Your task to perform on an android device: Go to Reddit.com Image 0: 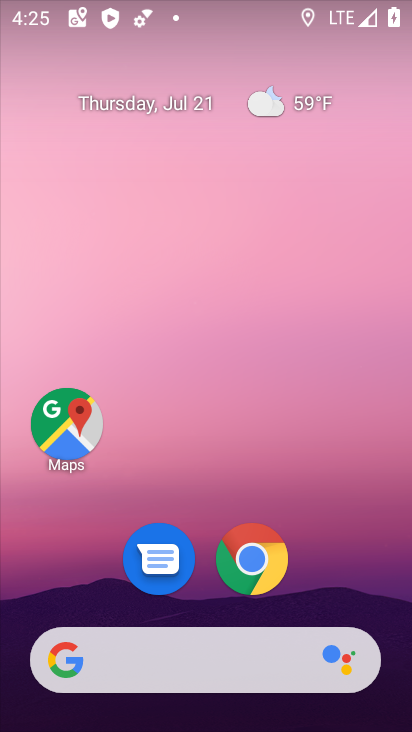
Step 0: click (240, 564)
Your task to perform on an android device: Go to Reddit.com Image 1: 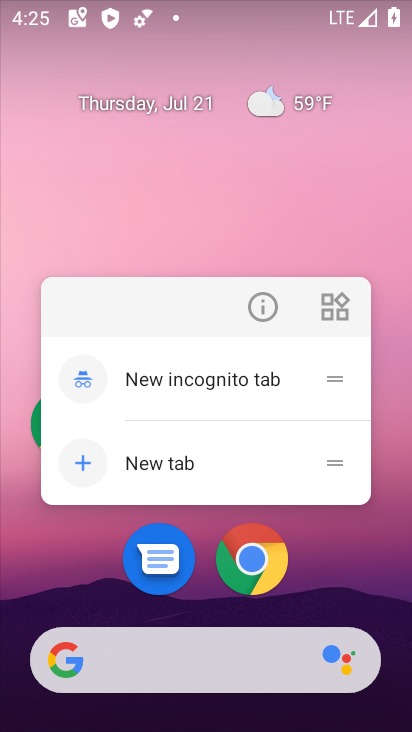
Step 1: click (249, 563)
Your task to perform on an android device: Go to Reddit.com Image 2: 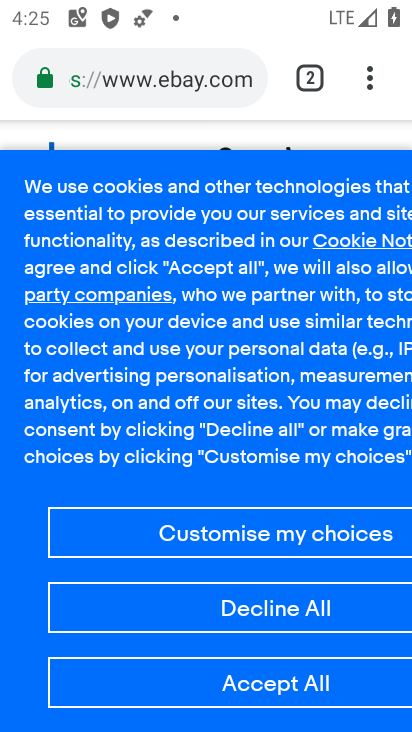
Step 2: click (306, 70)
Your task to perform on an android device: Go to Reddit.com Image 3: 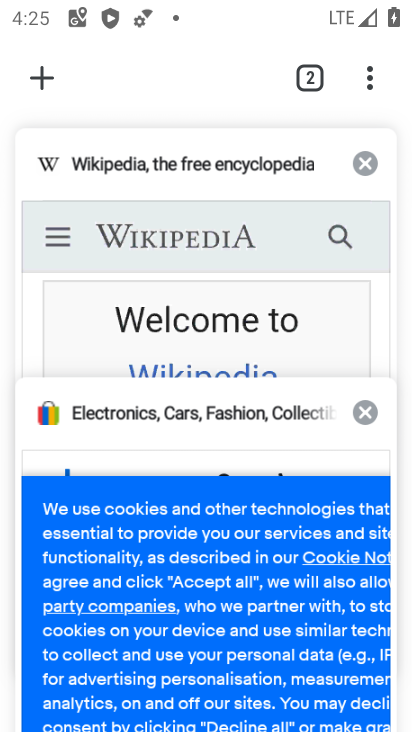
Step 3: click (46, 76)
Your task to perform on an android device: Go to Reddit.com Image 4: 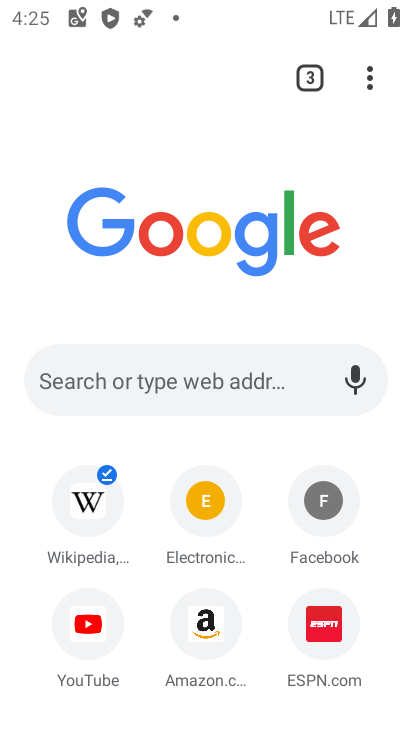
Step 4: click (114, 377)
Your task to perform on an android device: Go to Reddit.com Image 5: 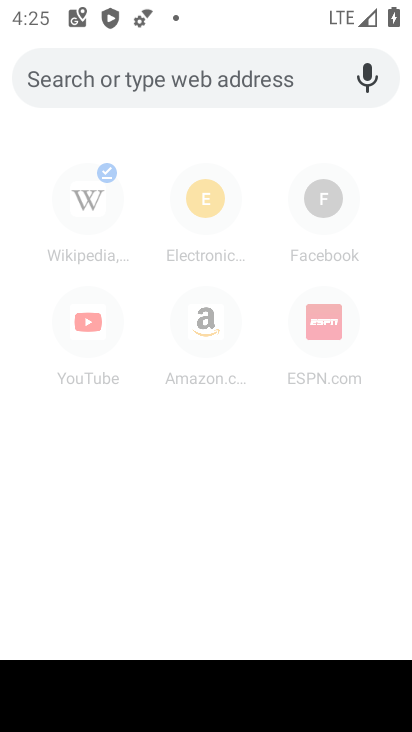
Step 5: type "reddit.com"
Your task to perform on an android device: Go to Reddit.com Image 6: 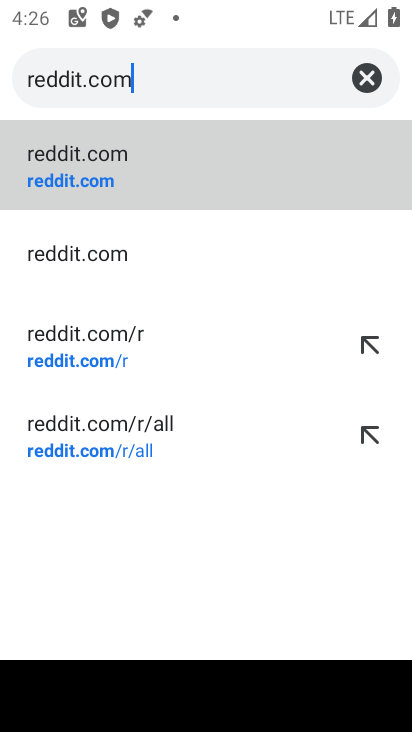
Step 6: click (153, 157)
Your task to perform on an android device: Go to Reddit.com Image 7: 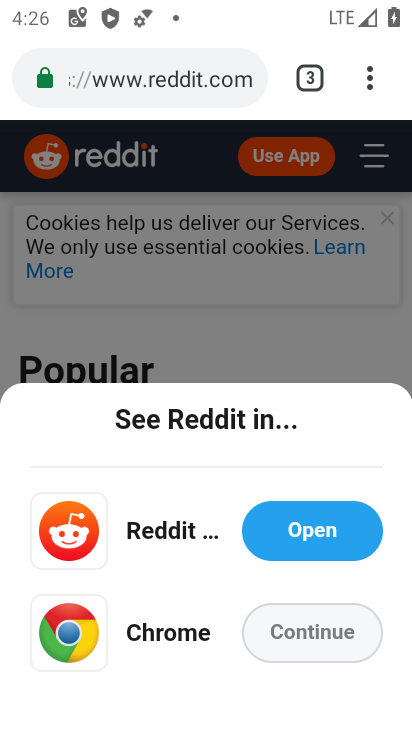
Step 7: task complete